Your task to perform on an android device: Open battery settings Image 0: 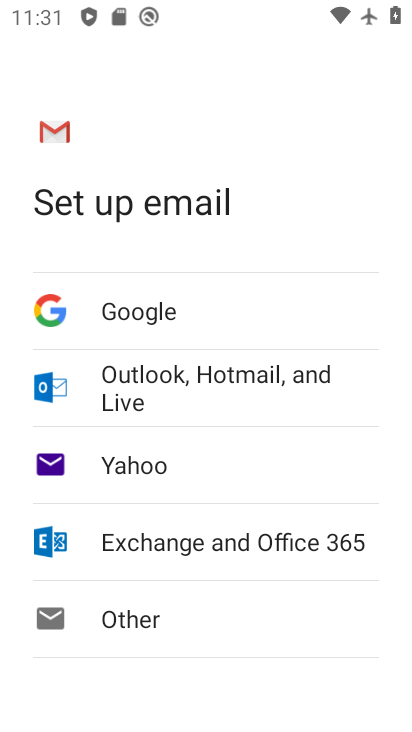
Step 0: press home button
Your task to perform on an android device: Open battery settings Image 1: 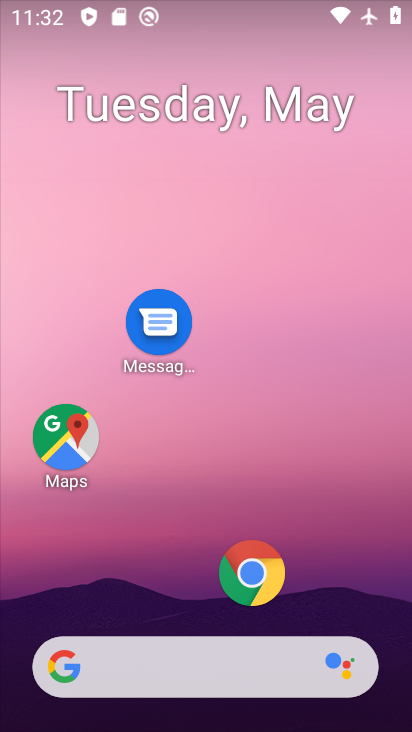
Step 1: drag from (186, 646) to (222, 243)
Your task to perform on an android device: Open battery settings Image 2: 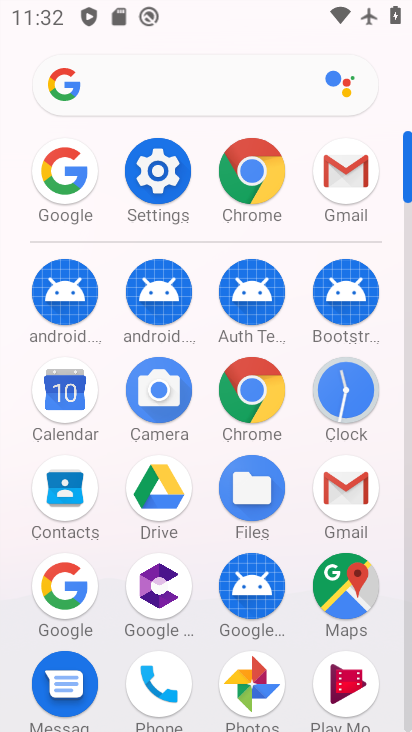
Step 2: click (141, 165)
Your task to perform on an android device: Open battery settings Image 3: 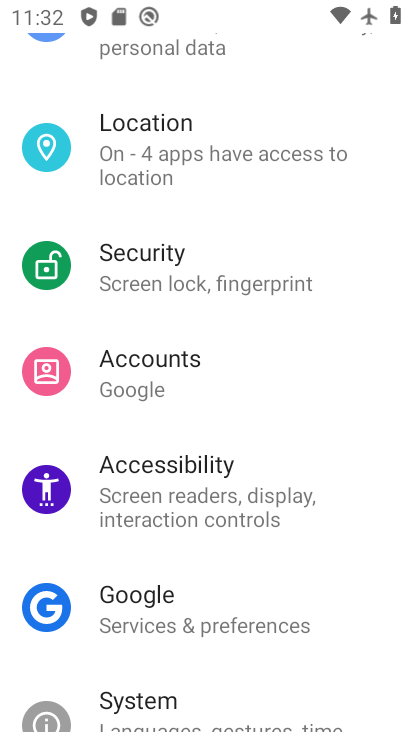
Step 3: drag from (152, 689) to (158, 337)
Your task to perform on an android device: Open battery settings Image 4: 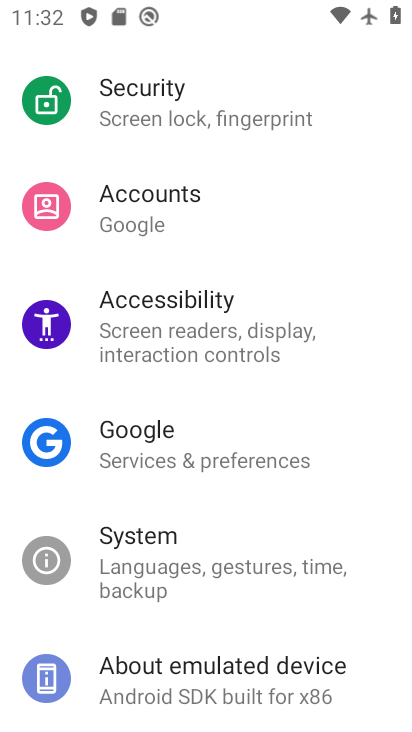
Step 4: drag from (235, 179) to (229, 544)
Your task to perform on an android device: Open battery settings Image 5: 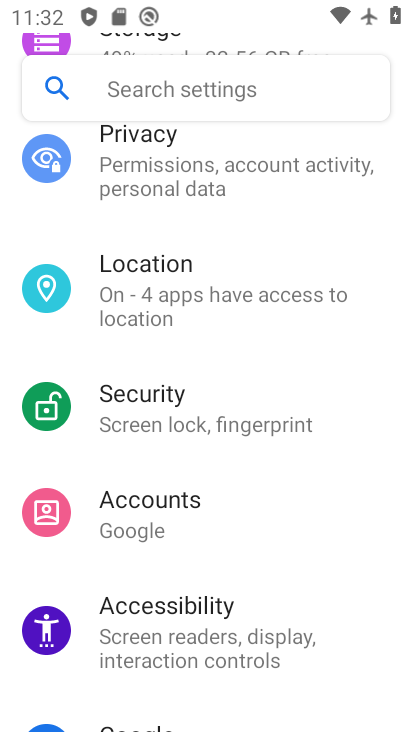
Step 5: drag from (255, 141) to (261, 431)
Your task to perform on an android device: Open battery settings Image 6: 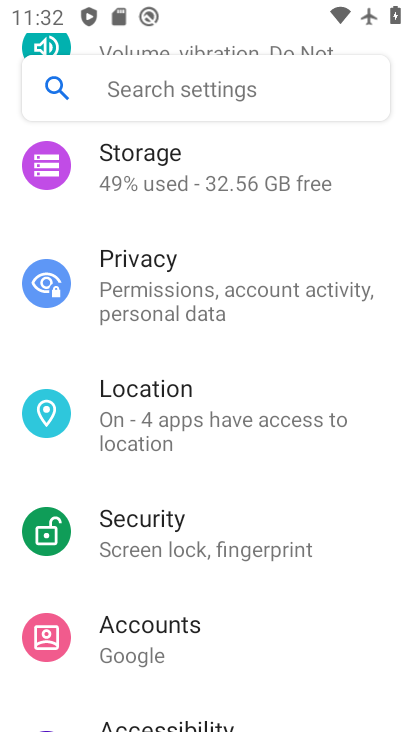
Step 6: drag from (208, 131) to (247, 442)
Your task to perform on an android device: Open battery settings Image 7: 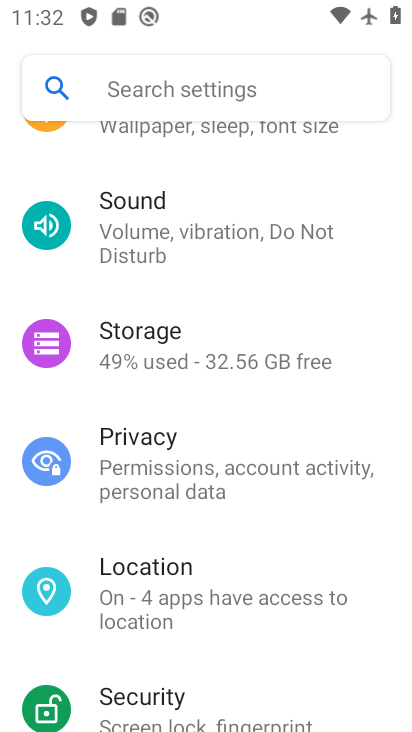
Step 7: drag from (233, 186) to (253, 468)
Your task to perform on an android device: Open battery settings Image 8: 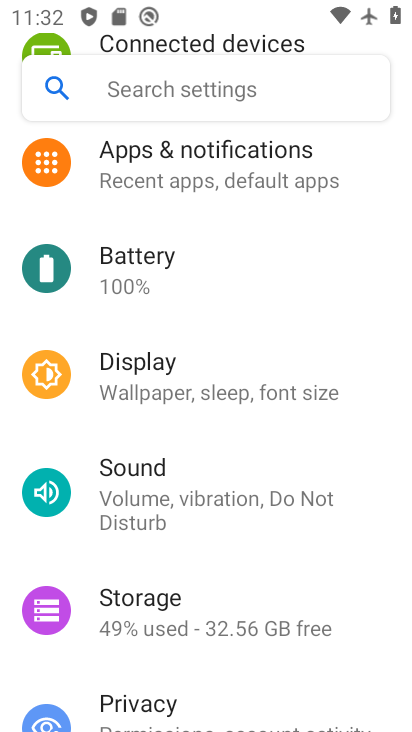
Step 8: click (143, 274)
Your task to perform on an android device: Open battery settings Image 9: 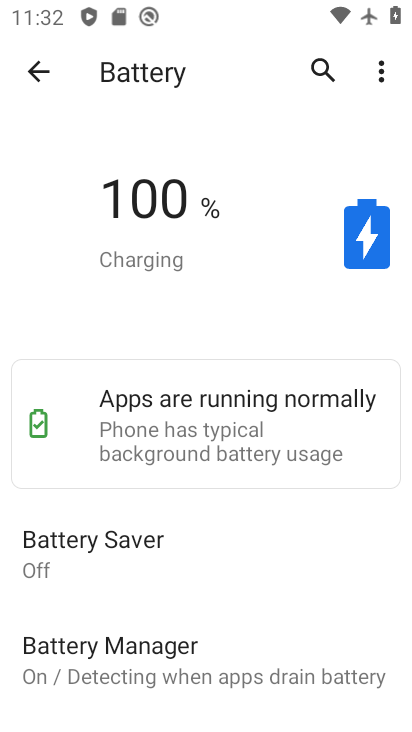
Step 9: task complete